Your task to perform on an android device: search for starred emails in the gmail app Image 0: 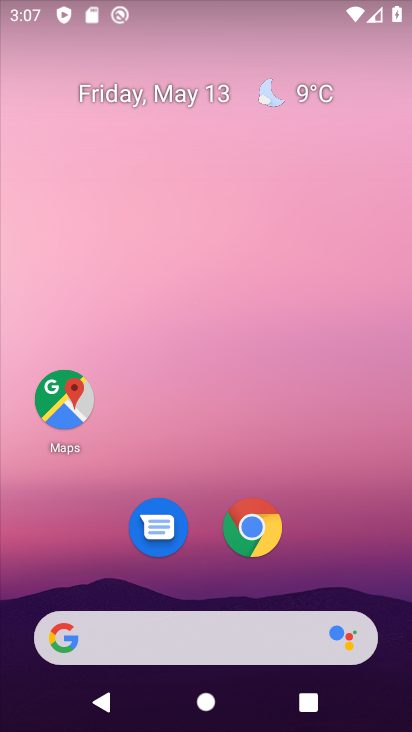
Step 0: drag from (329, 561) to (362, 299)
Your task to perform on an android device: search for starred emails in the gmail app Image 1: 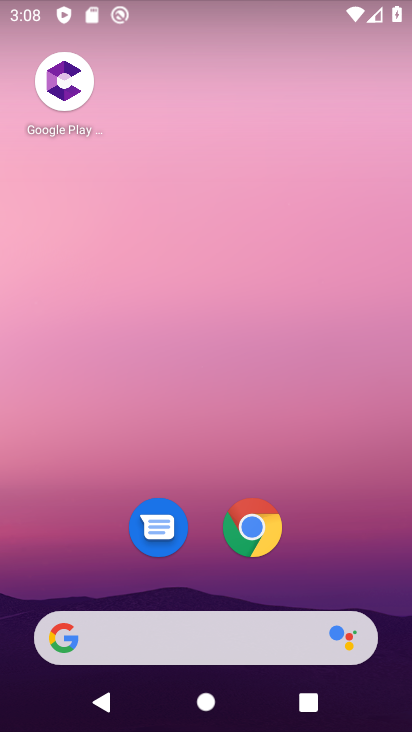
Step 1: drag from (311, 540) to (319, 250)
Your task to perform on an android device: search for starred emails in the gmail app Image 2: 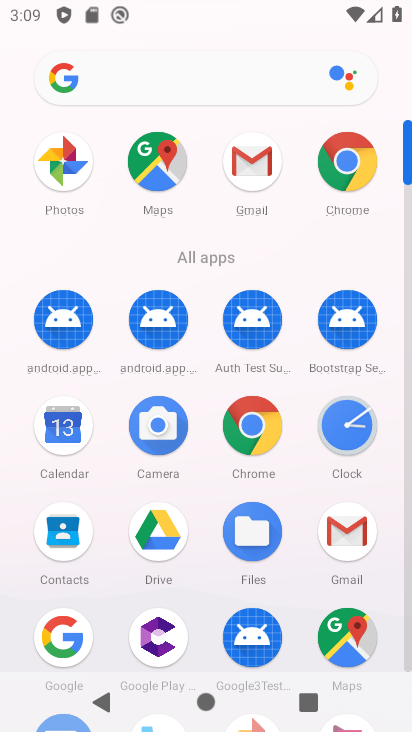
Step 2: click (352, 540)
Your task to perform on an android device: search for starred emails in the gmail app Image 3: 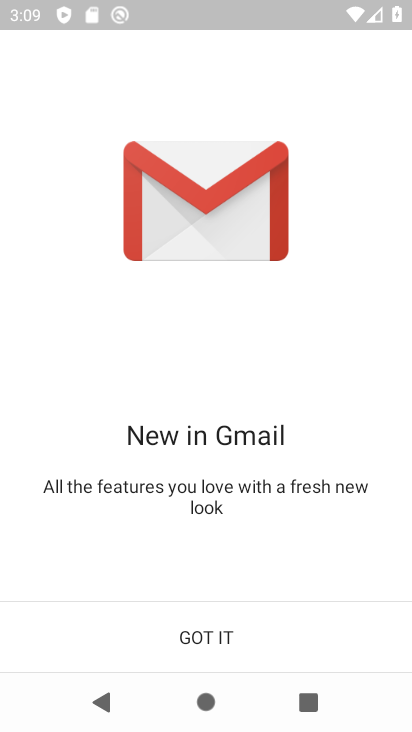
Step 3: click (243, 644)
Your task to perform on an android device: search for starred emails in the gmail app Image 4: 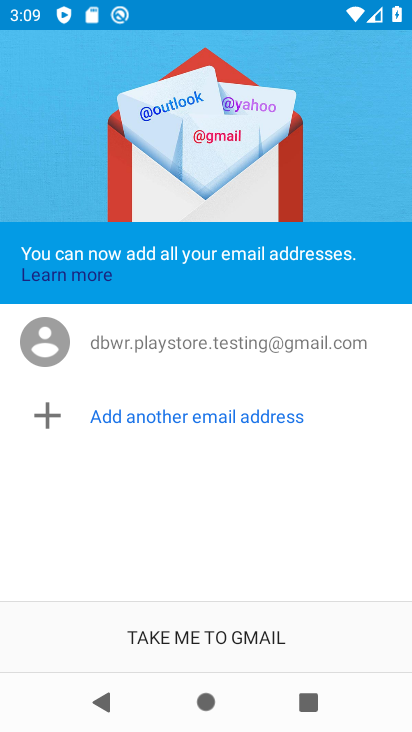
Step 4: click (236, 639)
Your task to perform on an android device: search for starred emails in the gmail app Image 5: 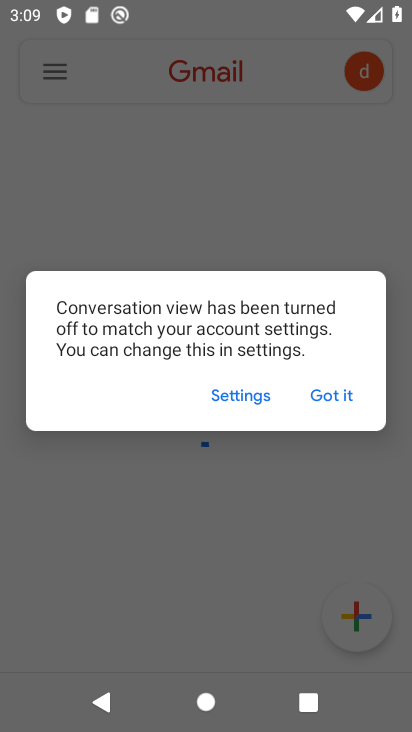
Step 5: click (350, 394)
Your task to perform on an android device: search for starred emails in the gmail app Image 6: 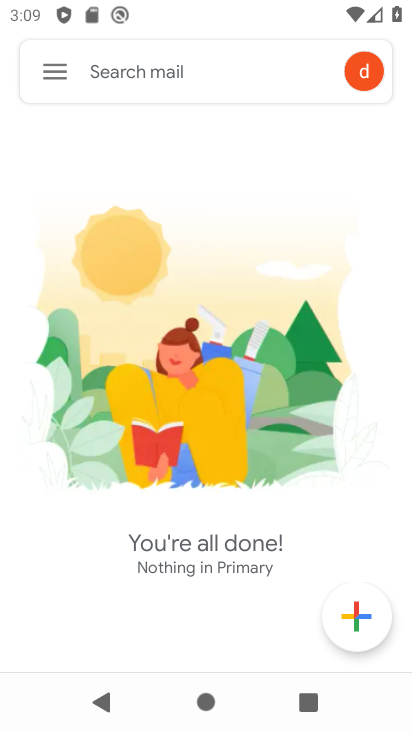
Step 6: click (58, 71)
Your task to perform on an android device: search for starred emails in the gmail app Image 7: 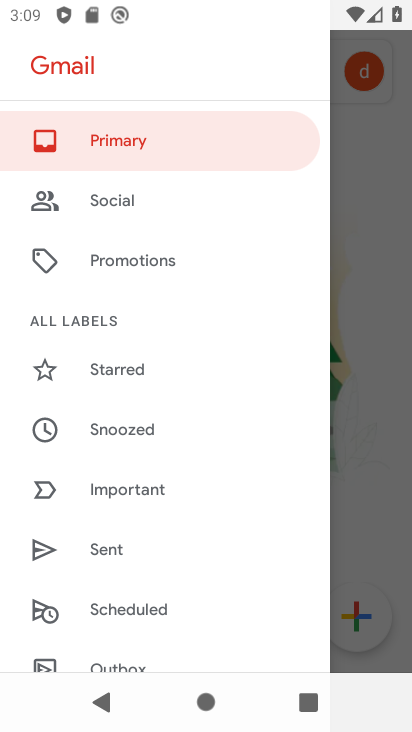
Step 7: click (162, 361)
Your task to perform on an android device: search for starred emails in the gmail app Image 8: 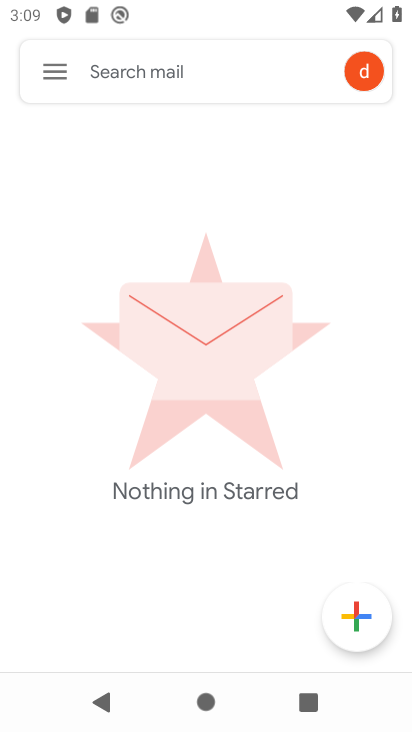
Step 8: task complete